Your task to perform on an android device: toggle notifications settings in the gmail app Image 0: 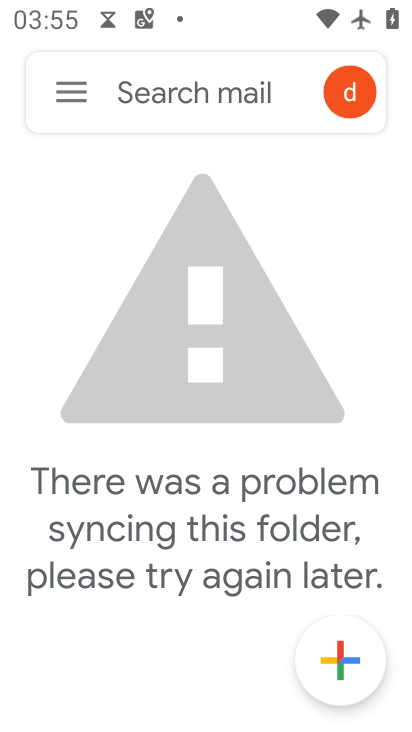
Step 0: press home button
Your task to perform on an android device: toggle notifications settings in the gmail app Image 1: 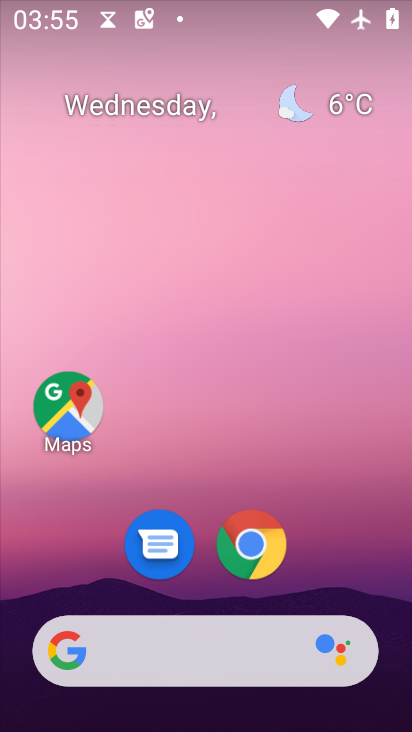
Step 1: drag from (314, 582) to (288, 71)
Your task to perform on an android device: toggle notifications settings in the gmail app Image 2: 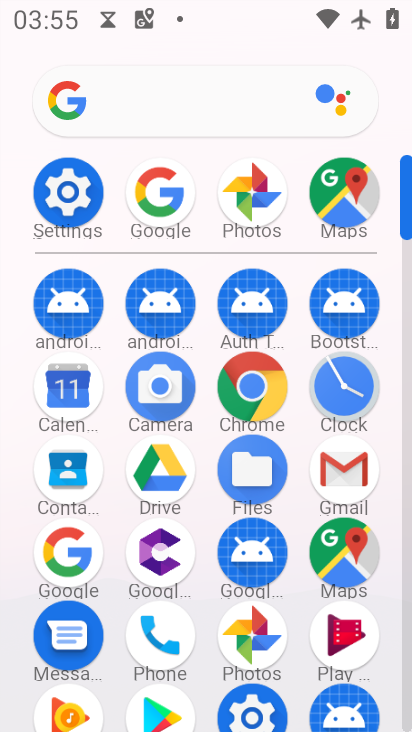
Step 2: click (334, 476)
Your task to perform on an android device: toggle notifications settings in the gmail app Image 3: 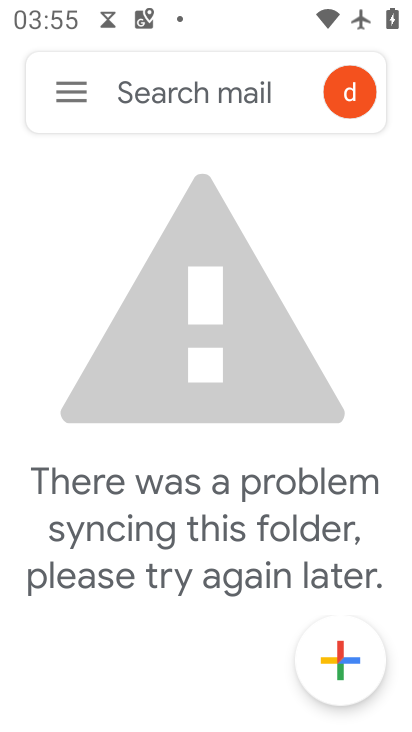
Step 3: click (71, 98)
Your task to perform on an android device: toggle notifications settings in the gmail app Image 4: 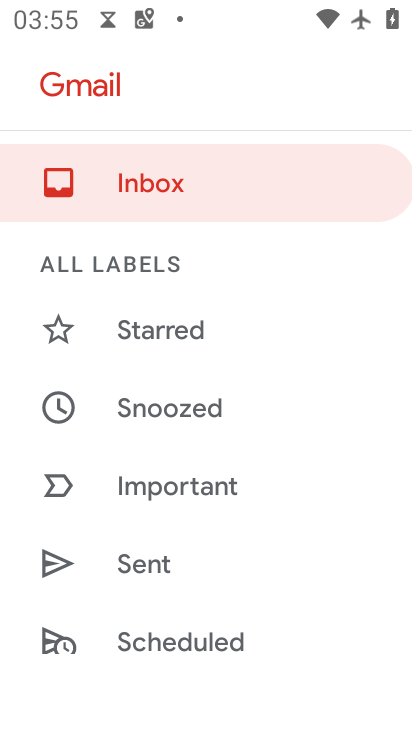
Step 4: drag from (185, 621) to (113, 159)
Your task to perform on an android device: toggle notifications settings in the gmail app Image 5: 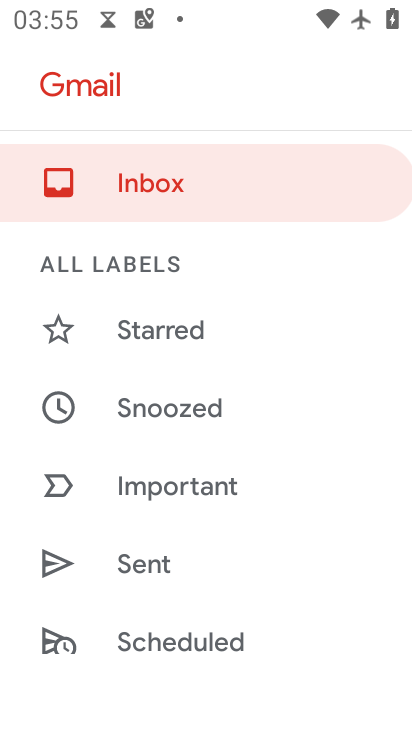
Step 5: drag from (182, 632) to (264, 242)
Your task to perform on an android device: toggle notifications settings in the gmail app Image 6: 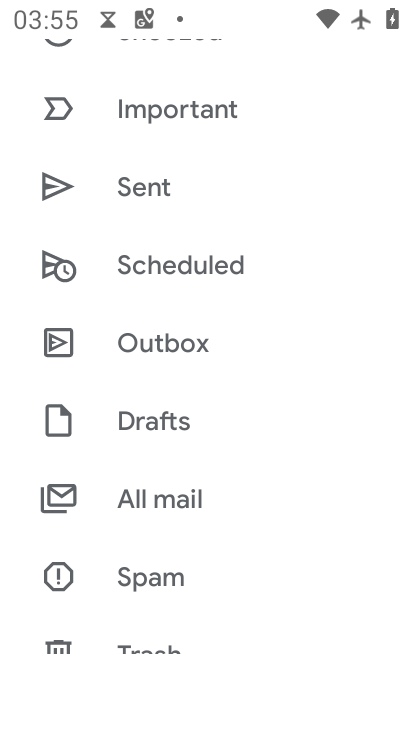
Step 6: drag from (293, 613) to (281, 193)
Your task to perform on an android device: toggle notifications settings in the gmail app Image 7: 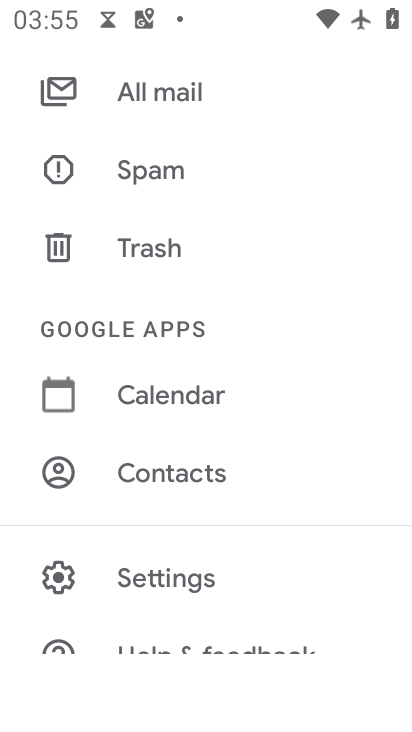
Step 7: click (223, 572)
Your task to perform on an android device: toggle notifications settings in the gmail app Image 8: 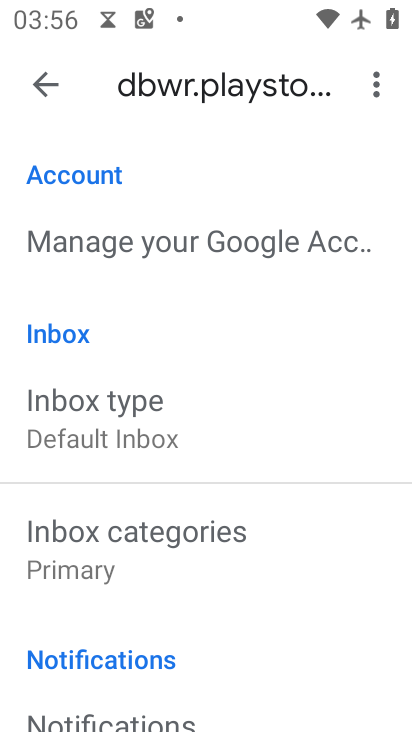
Step 8: drag from (201, 636) to (212, 209)
Your task to perform on an android device: toggle notifications settings in the gmail app Image 9: 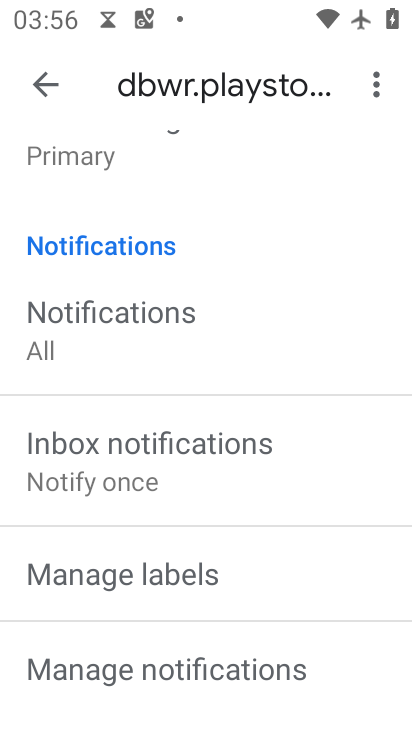
Step 9: click (177, 655)
Your task to perform on an android device: toggle notifications settings in the gmail app Image 10: 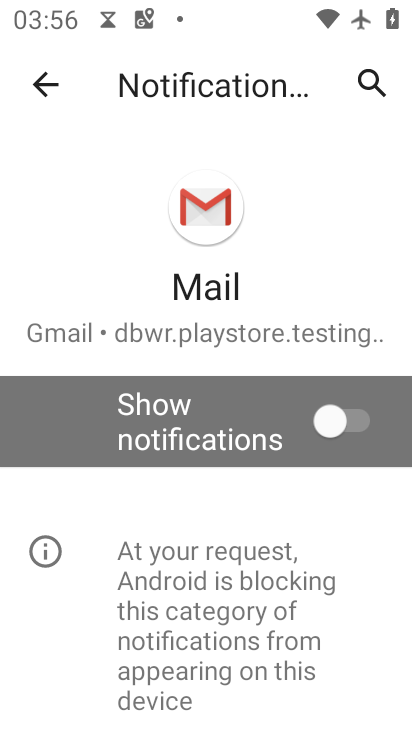
Step 10: click (335, 434)
Your task to perform on an android device: toggle notifications settings in the gmail app Image 11: 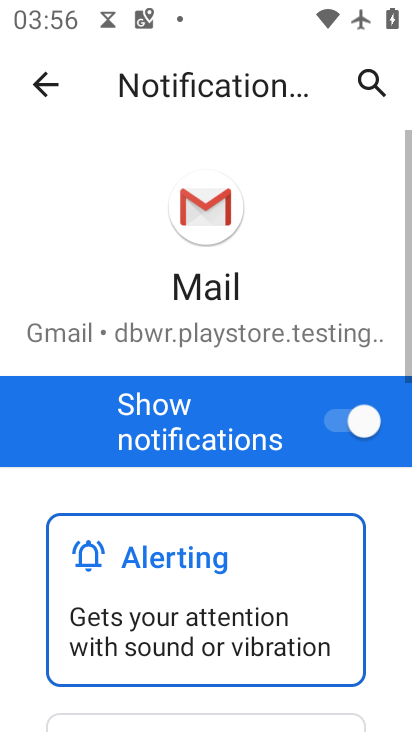
Step 11: task complete